Your task to perform on an android device: turn off data saver in the chrome app Image 0: 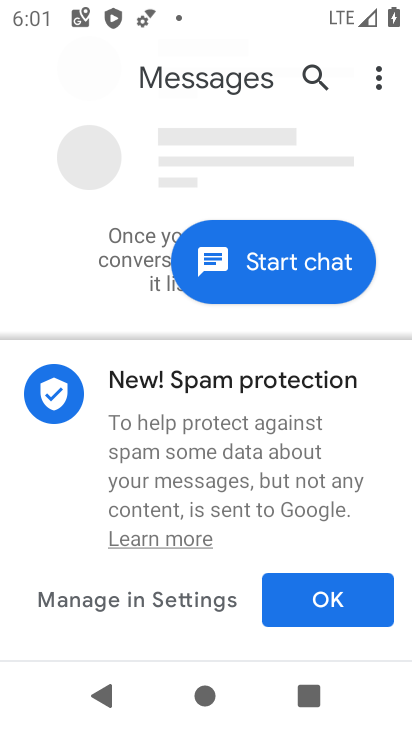
Step 0: drag from (337, 532) to (288, 255)
Your task to perform on an android device: turn off data saver in the chrome app Image 1: 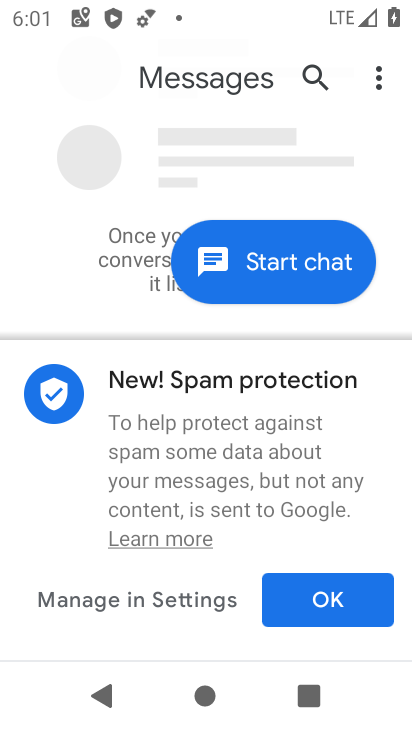
Step 1: press home button
Your task to perform on an android device: turn off data saver in the chrome app Image 2: 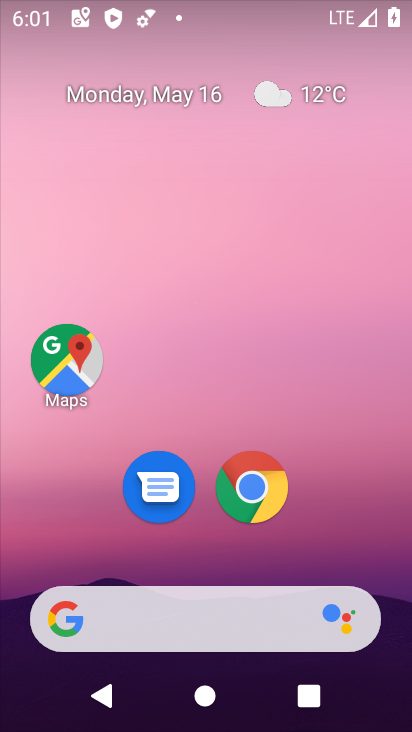
Step 2: click (258, 483)
Your task to perform on an android device: turn off data saver in the chrome app Image 3: 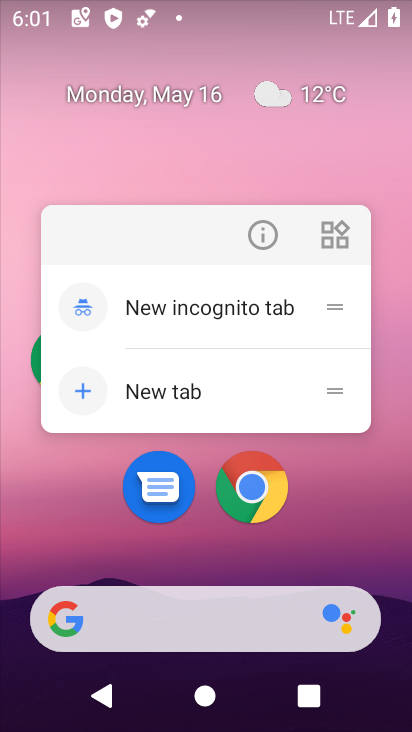
Step 3: click (245, 484)
Your task to perform on an android device: turn off data saver in the chrome app Image 4: 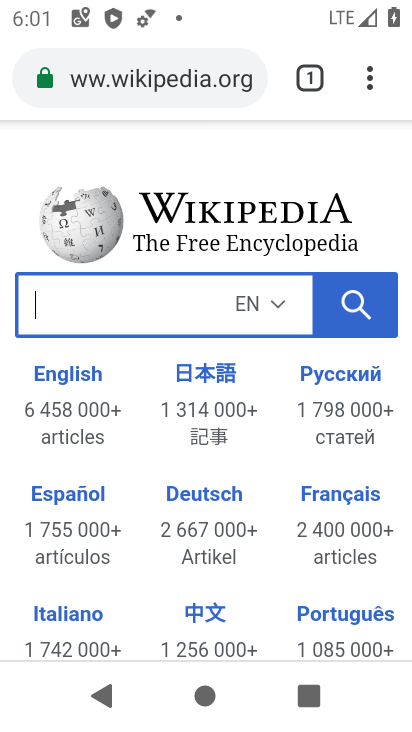
Step 4: drag from (383, 68) to (209, 548)
Your task to perform on an android device: turn off data saver in the chrome app Image 5: 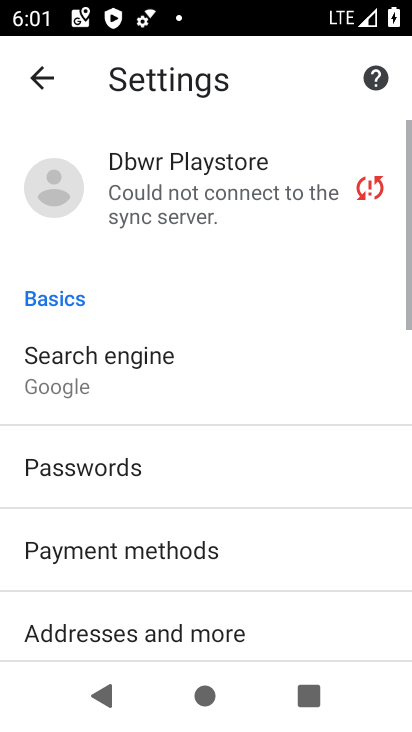
Step 5: drag from (221, 594) to (161, 50)
Your task to perform on an android device: turn off data saver in the chrome app Image 6: 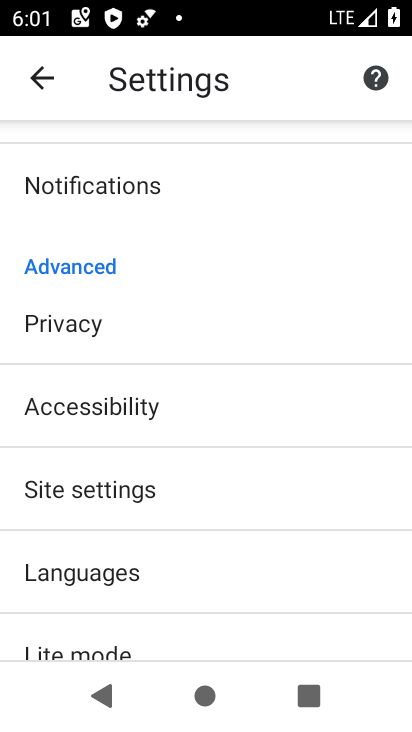
Step 6: drag from (157, 549) to (206, 211)
Your task to perform on an android device: turn off data saver in the chrome app Image 7: 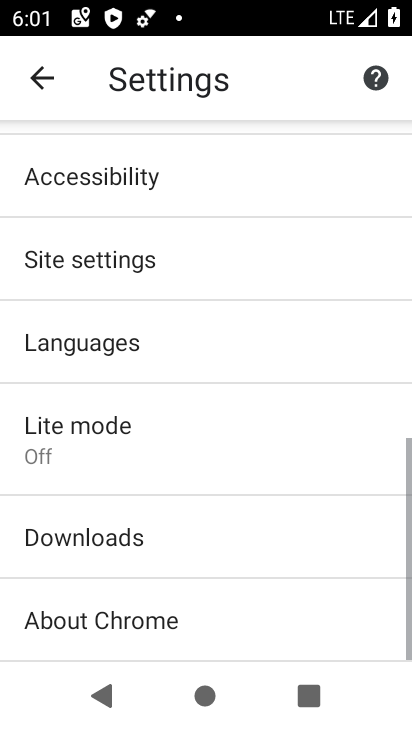
Step 7: click (106, 437)
Your task to perform on an android device: turn off data saver in the chrome app Image 8: 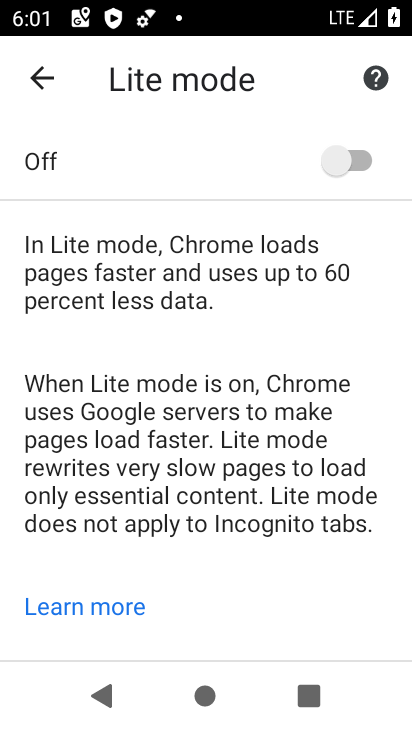
Step 8: task complete